Your task to perform on an android device: Open Chrome and go to the settings page Image 0: 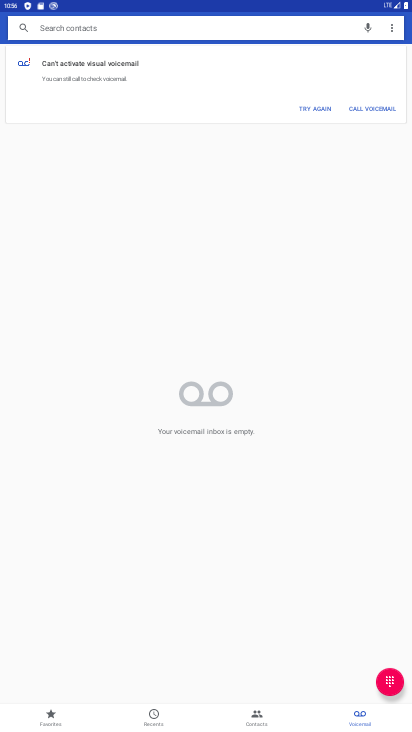
Step 0: press home button
Your task to perform on an android device: Open Chrome and go to the settings page Image 1: 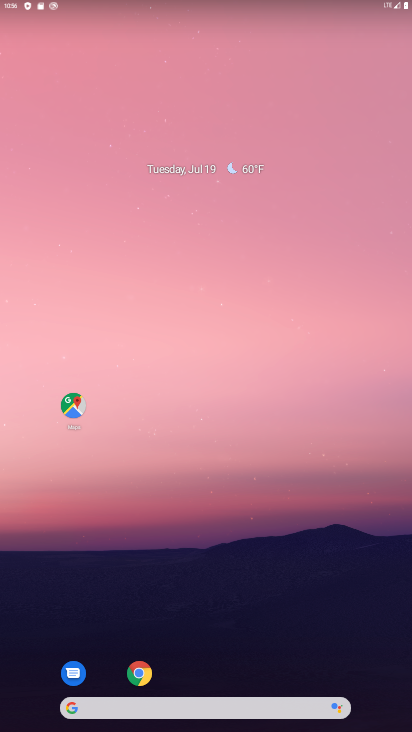
Step 1: click (137, 673)
Your task to perform on an android device: Open Chrome and go to the settings page Image 2: 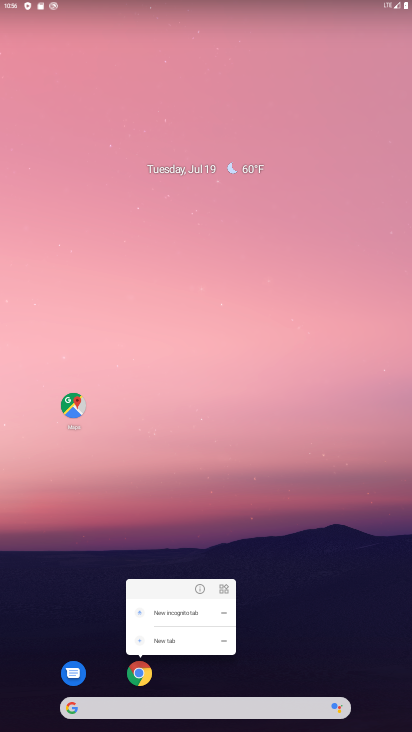
Step 2: click (139, 676)
Your task to perform on an android device: Open Chrome and go to the settings page Image 3: 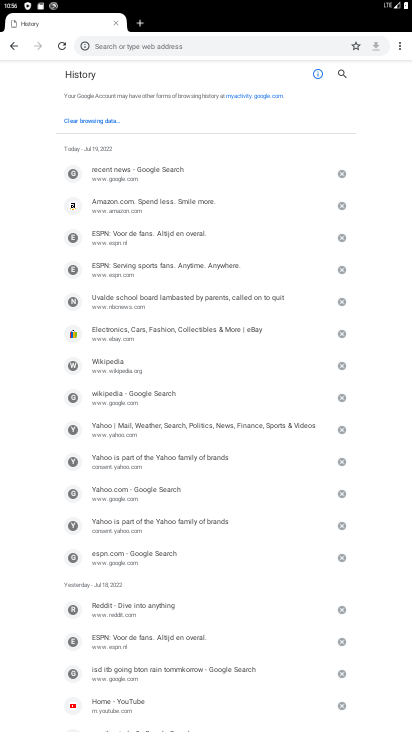
Step 3: click (396, 48)
Your task to perform on an android device: Open Chrome and go to the settings page Image 4: 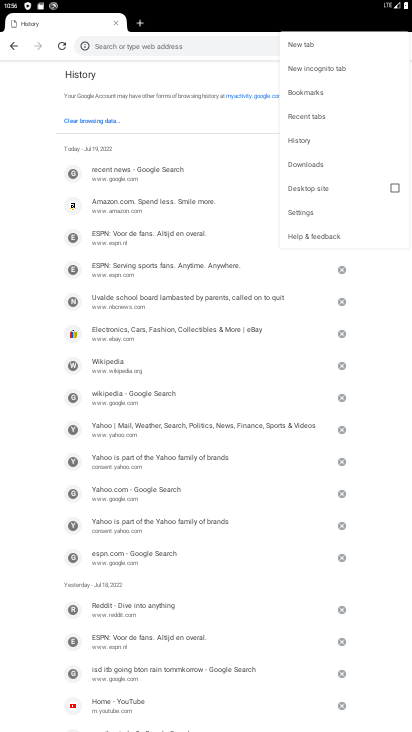
Step 4: click (296, 215)
Your task to perform on an android device: Open Chrome and go to the settings page Image 5: 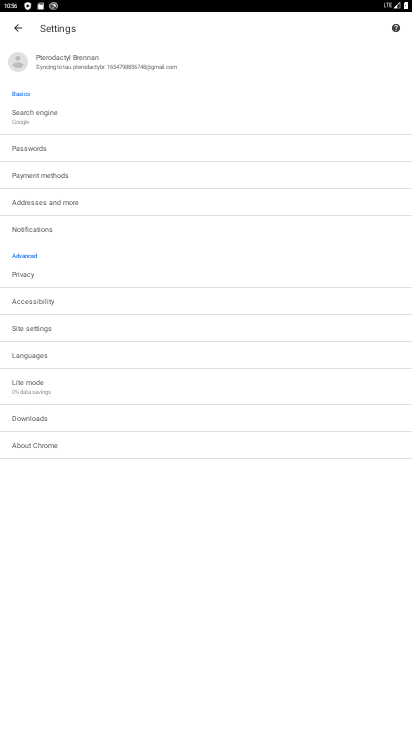
Step 5: task complete